Your task to perform on an android device: Go to sound settings Image 0: 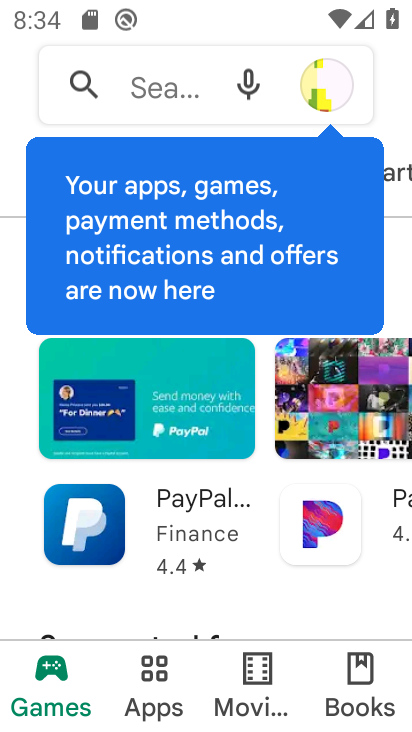
Step 0: press back button
Your task to perform on an android device: Go to sound settings Image 1: 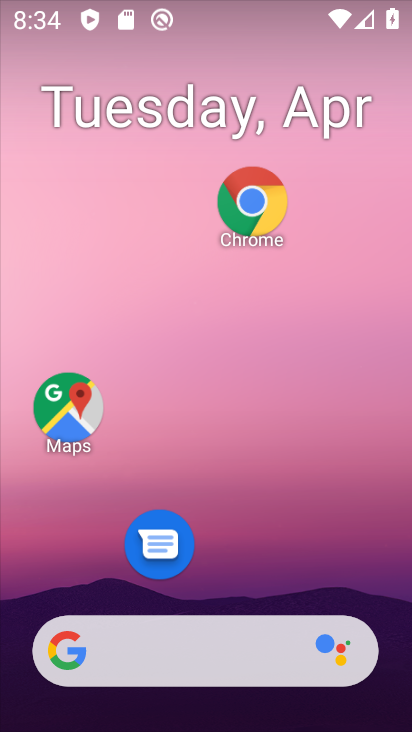
Step 1: drag from (261, 531) to (259, 65)
Your task to perform on an android device: Go to sound settings Image 2: 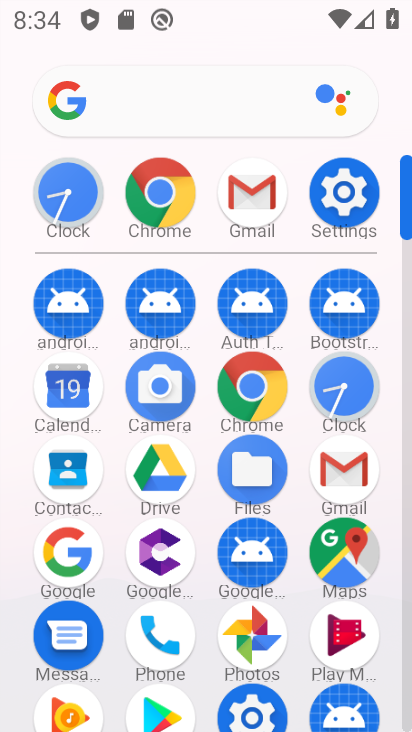
Step 2: click (340, 182)
Your task to perform on an android device: Go to sound settings Image 3: 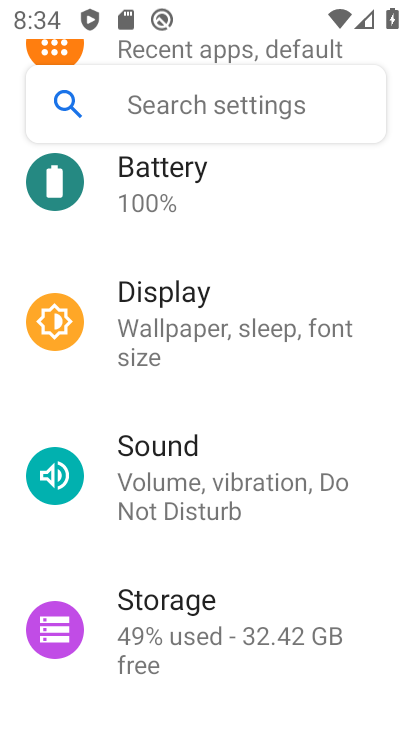
Step 3: click (183, 475)
Your task to perform on an android device: Go to sound settings Image 4: 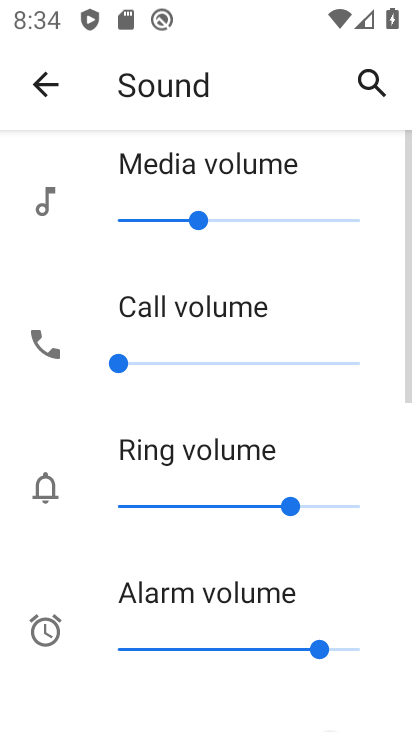
Step 4: task complete